Your task to perform on an android device: Open the Play Movies app and select the watchlist tab. Image 0: 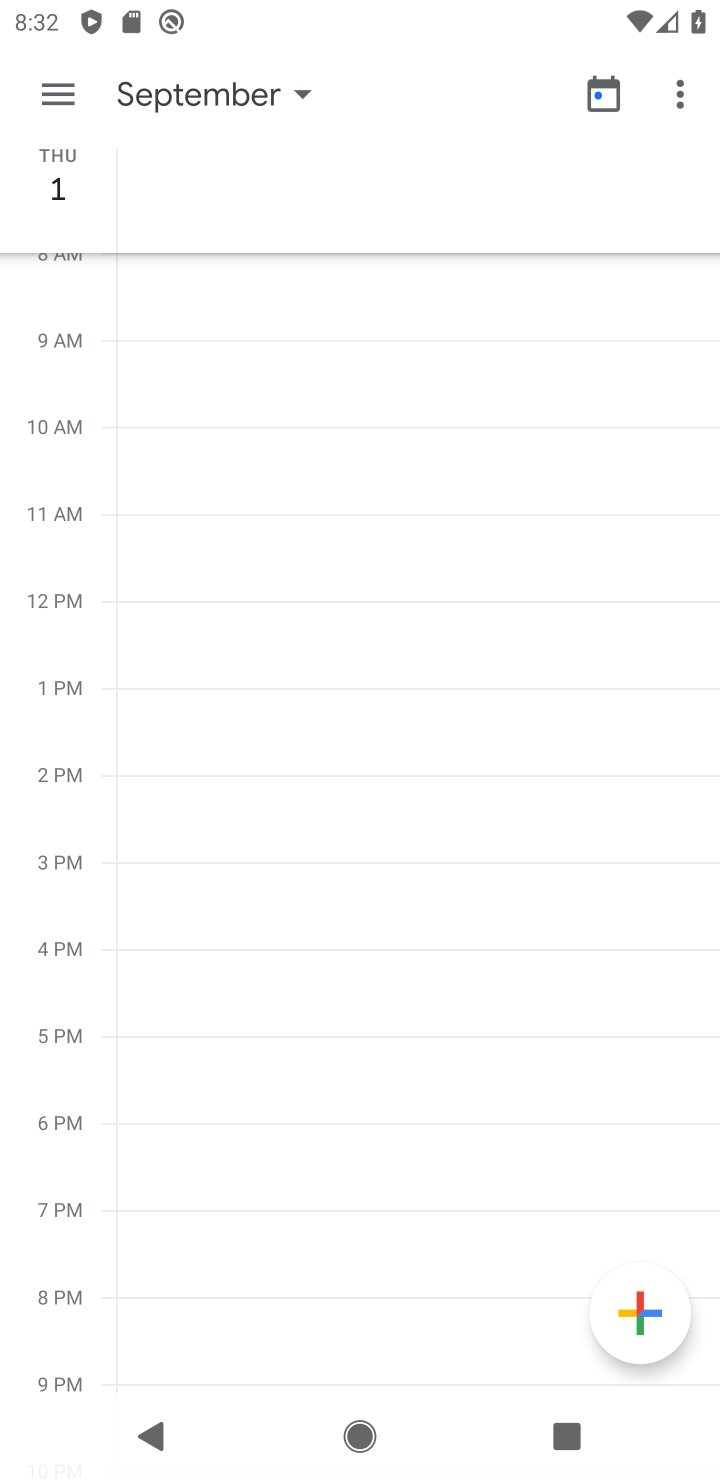
Step 0: press home button
Your task to perform on an android device: Open the Play Movies app and select the watchlist tab. Image 1: 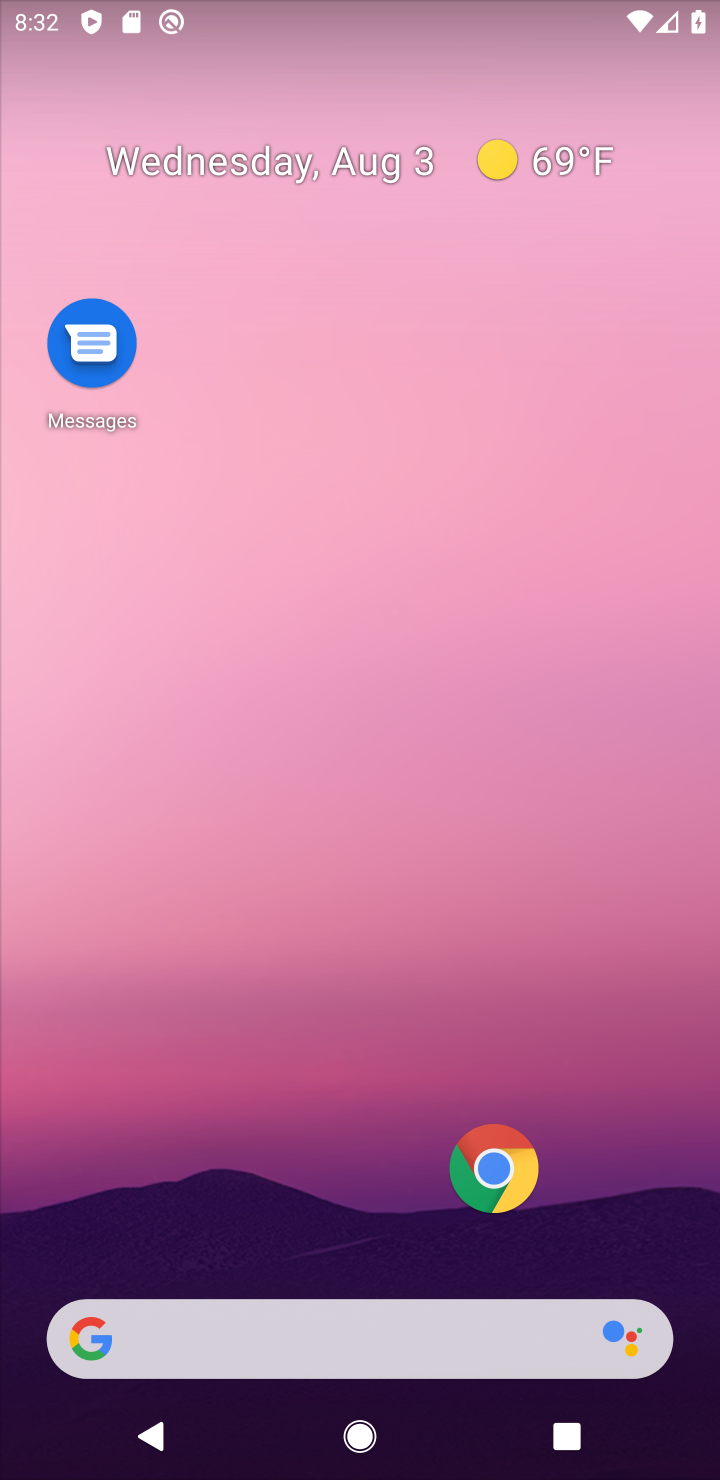
Step 1: drag from (313, 1220) to (31, 118)
Your task to perform on an android device: Open the Play Movies app and select the watchlist tab. Image 2: 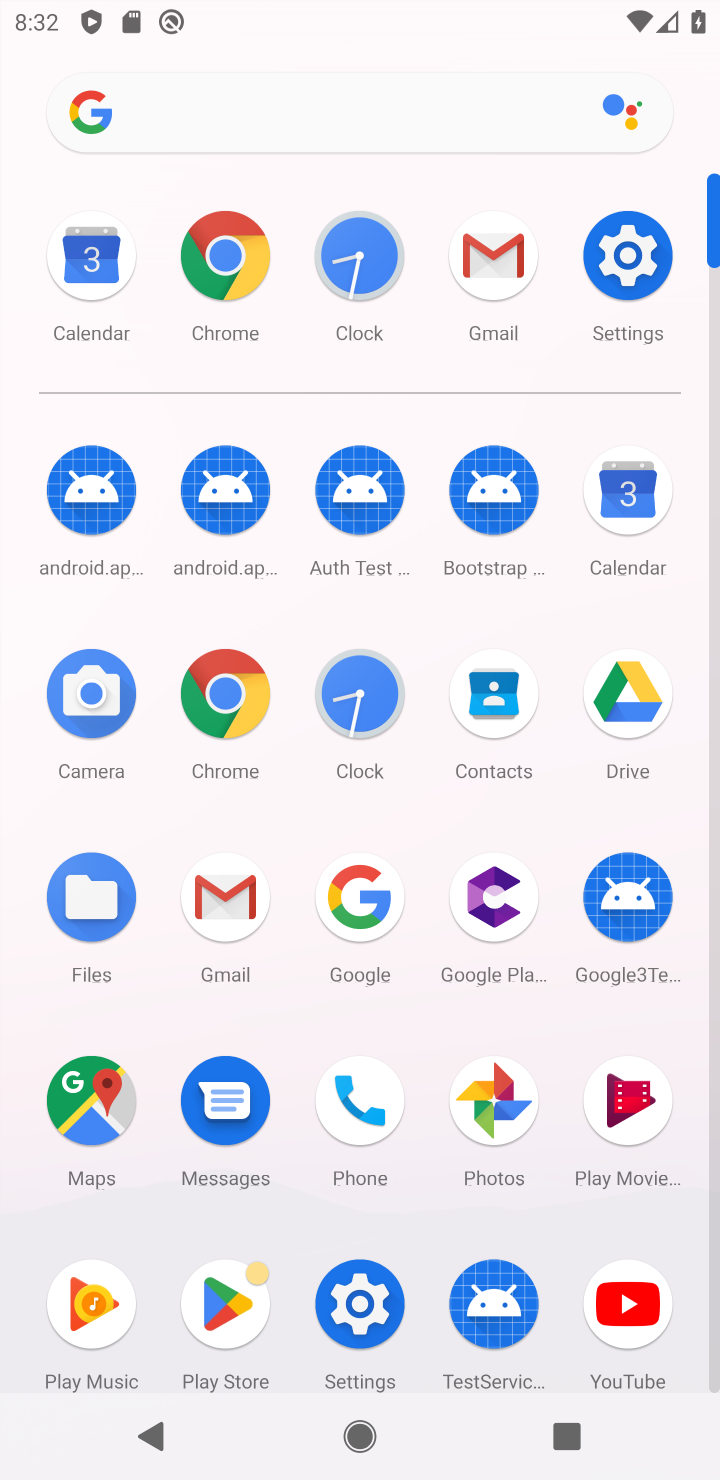
Step 2: click (632, 1165)
Your task to perform on an android device: Open the Play Movies app and select the watchlist tab. Image 3: 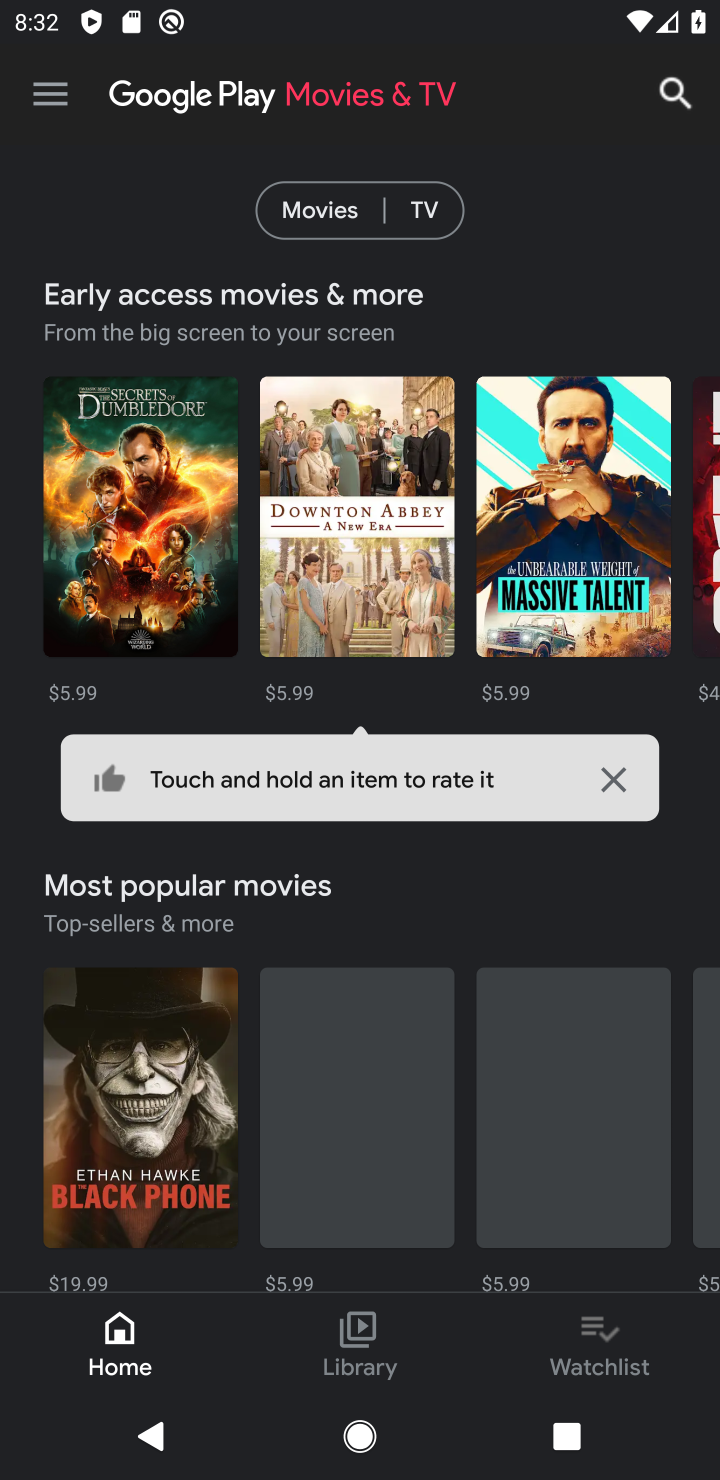
Step 3: click (615, 1321)
Your task to perform on an android device: Open the Play Movies app and select the watchlist tab. Image 4: 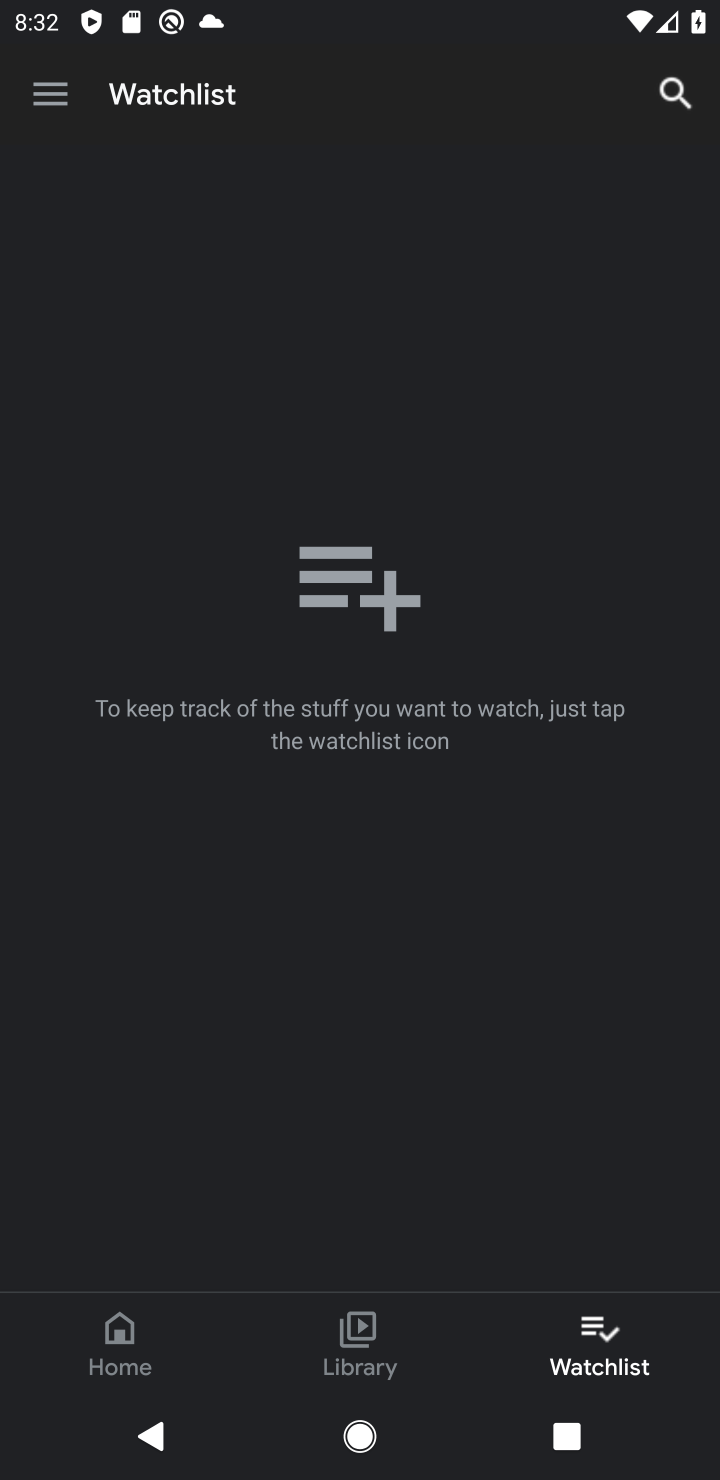
Step 4: task complete